Your task to perform on an android device: Search for the new Nintendo switch on Walmart. Image 0: 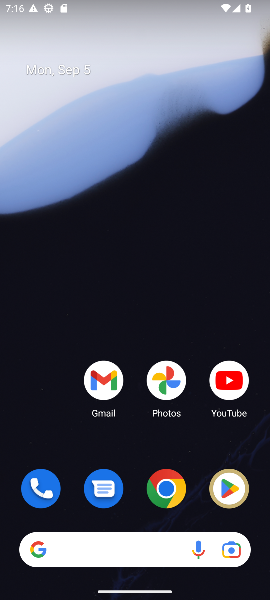
Step 0: click (158, 490)
Your task to perform on an android device: Search for the new Nintendo switch on Walmart. Image 1: 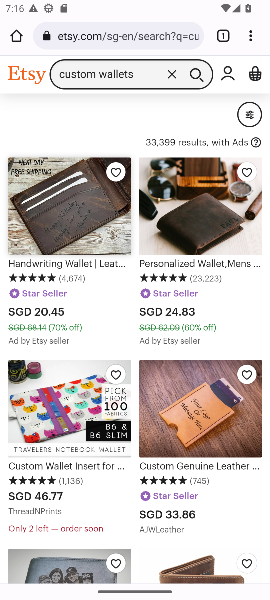
Step 1: click (158, 31)
Your task to perform on an android device: Search for the new Nintendo switch on Walmart. Image 2: 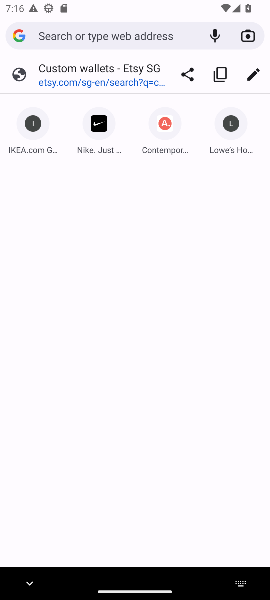
Step 2: type "walmart"
Your task to perform on an android device: Search for the new Nintendo switch on Walmart. Image 3: 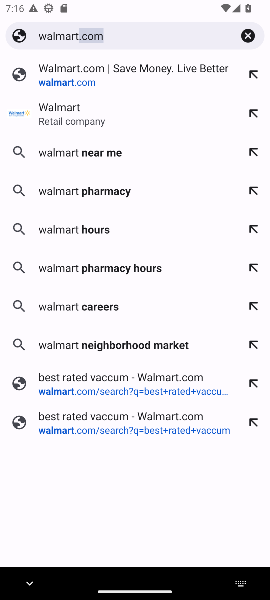
Step 3: press enter
Your task to perform on an android device: Search for the new Nintendo switch on Walmart. Image 4: 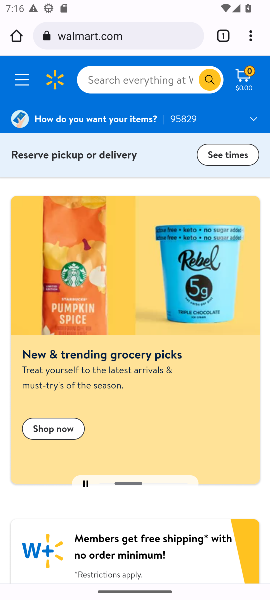
Step 4: click (100, 81)
Your task to perform on an android device: Search for the new Nintendo switch on Walmart. Image 5: 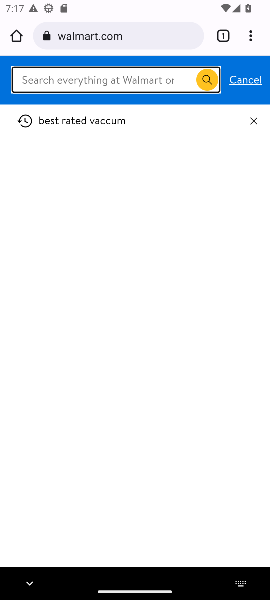
Step 5: type "new nintendo switch"
Your task to perform on an android device: Search for the new Nintendo switch on Walmart. Image 6: 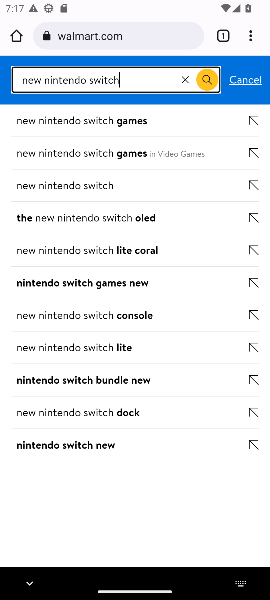
Step 6: press enter
Your task to perform on an android device: Search for the new Nintendo switch on Walmart. Image 7: 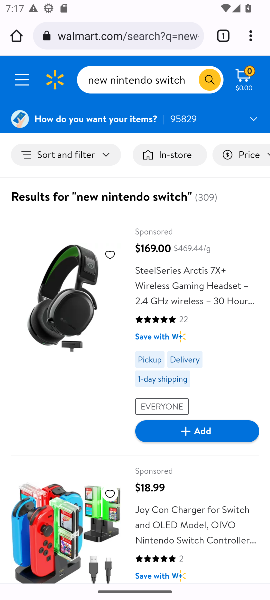
Step 7: click (78, 152)
Your task to perform on an android device: Search for the new Nintendo switch on Walmart. Image 8: 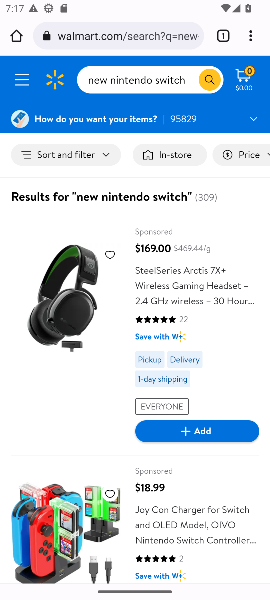
Step 8: click (78, 152)
Your task to perform on an android device: Search for the new Nintendo switch on Walmart. Image 9: 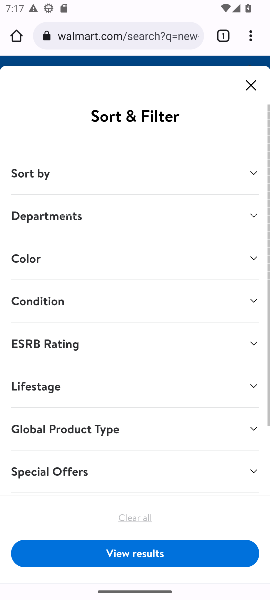
Step 9: click (99, 296)
Your task to perform on an android device: Search for the new Nintendo switch on Walmart. Image 10: 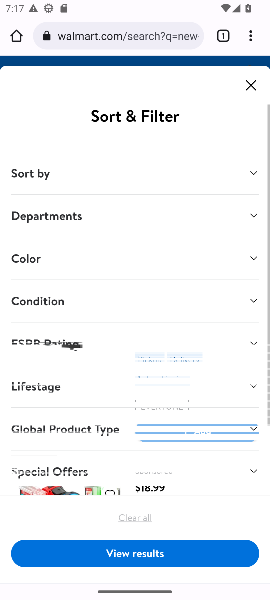
Step 10: click (254, 302)
Your task to perform on an android device: Search for the new Nintendo switch on Walmart. Image 11: 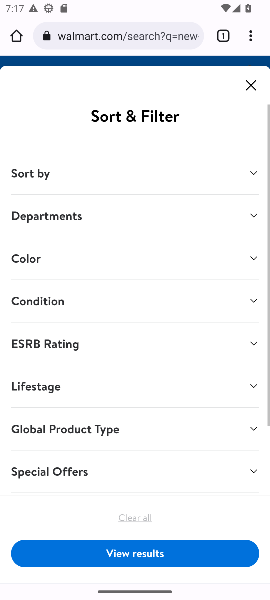
Step 11: click (254, 302)
Your task to perform on an android device: Search for the new Nintendo switch on Walmart. Image 12: 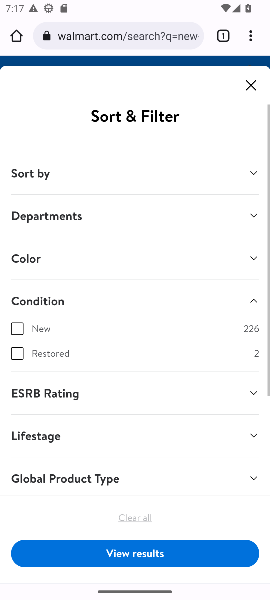
Step 12: click (17, 329)
Your task to perform on an android device: Search for the new Nintendo switch on Walmart. Image 13: 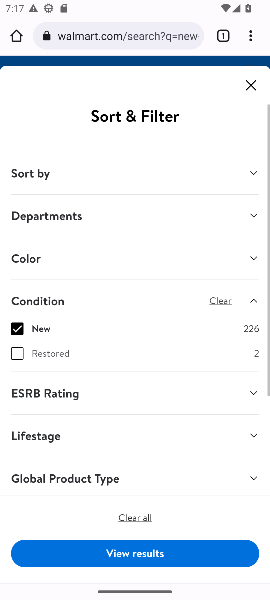
Step 13: click (163, 561)
Your task to perform on an android device: Search for the new Nintendo switch on Walmart. Image 14: 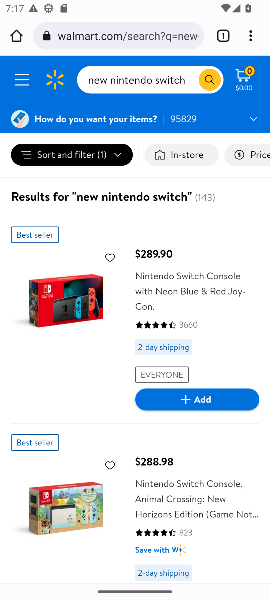
Step 14: task complete